Your task to perform on an android device: Empty the shopping cart on target.com. Image 0: 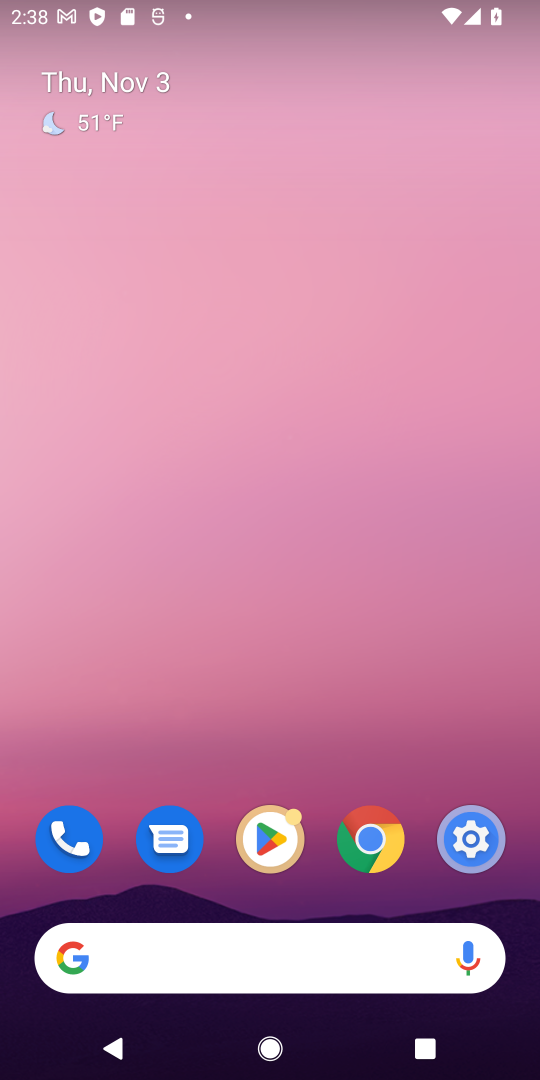
Step 0: click (252, 935)
Your task to perform on an android device: Empty the shopping cart on target.com. Image 1: 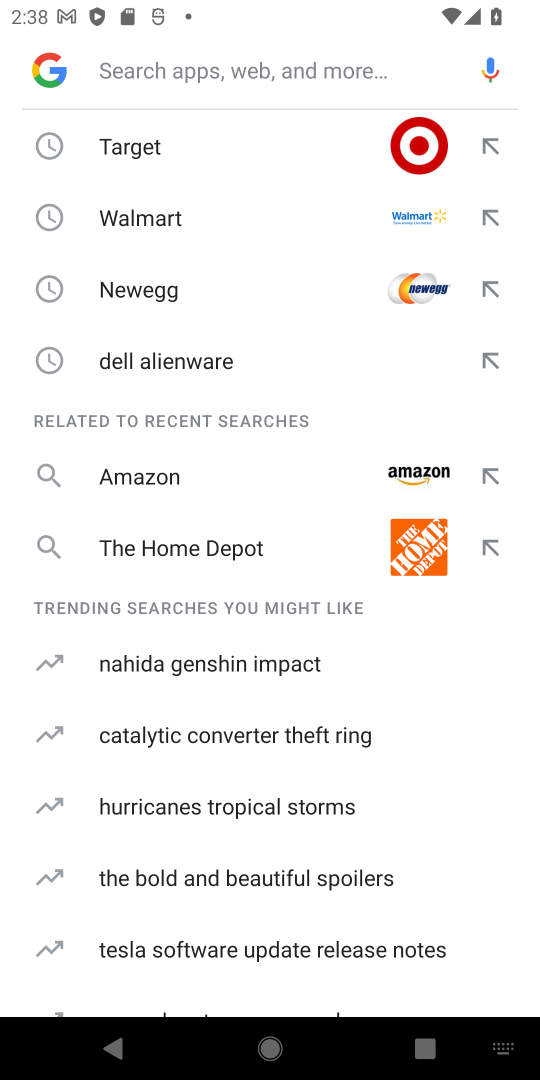
Step 1: click (313, 139)
Your task to perform on an android device: Empty the shopping cart on target.com. Image 2: 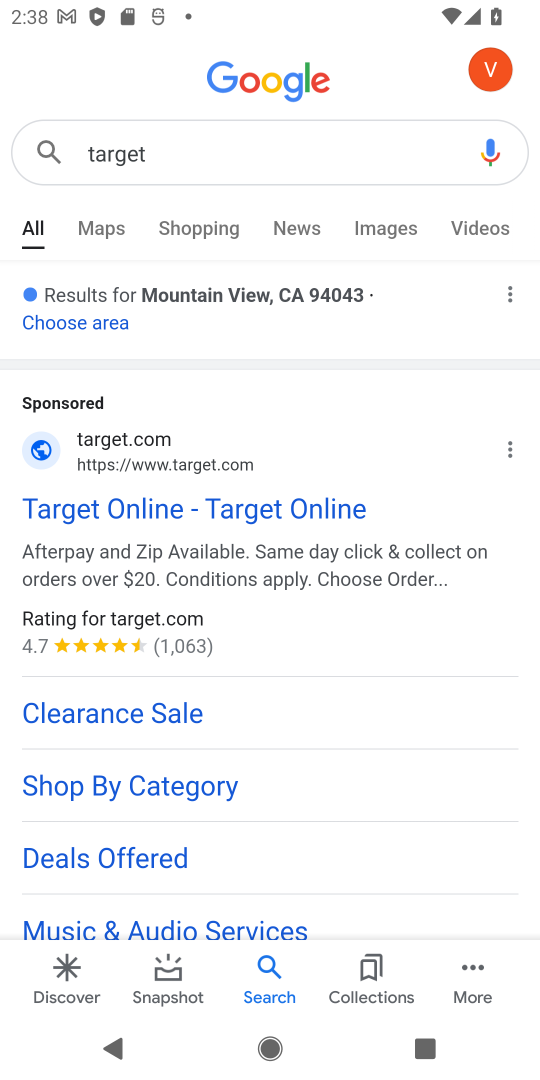
Step 2: click (224, 493)
Your task to perform on an android device: Empty the shopping cart on target.com. Image 3: 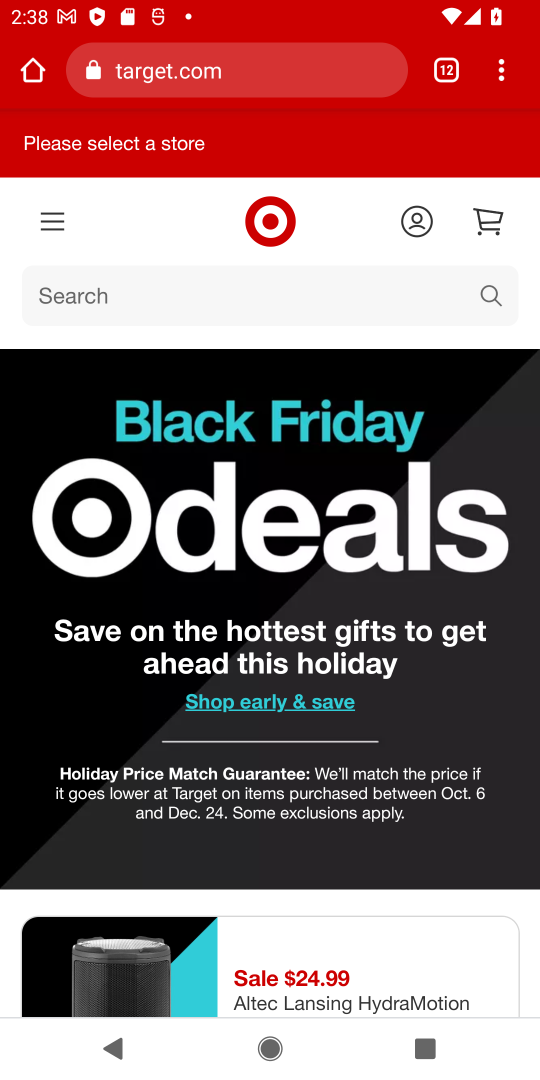
Step 3: click (480, 210)
Your task to perform on an android device: Empty the shopping cart on target.com. Image 4: 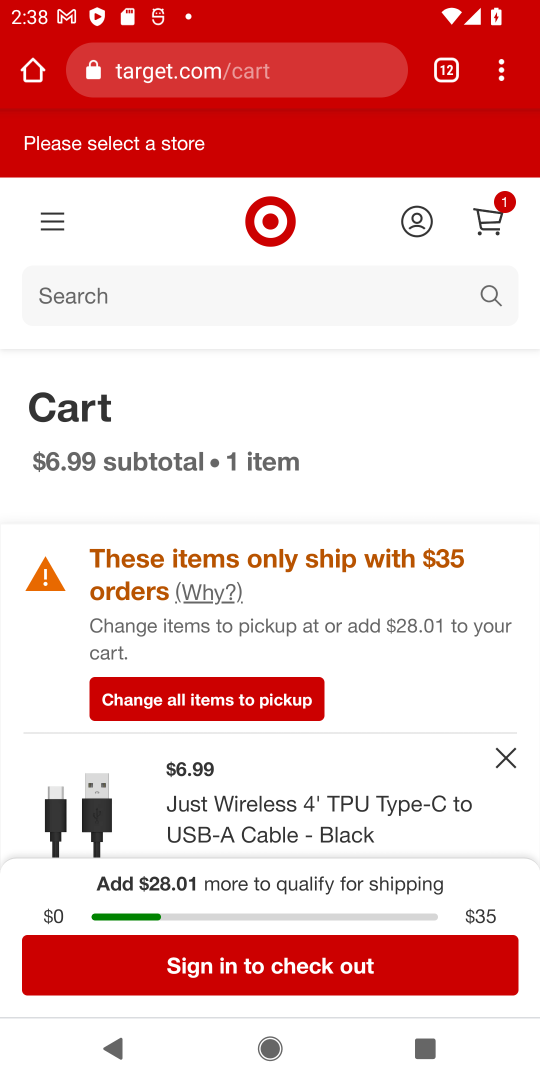
Step 4: click (508, 761)
Your task to perform on an android device: Empty the shopping cart on target.com. Image 5: 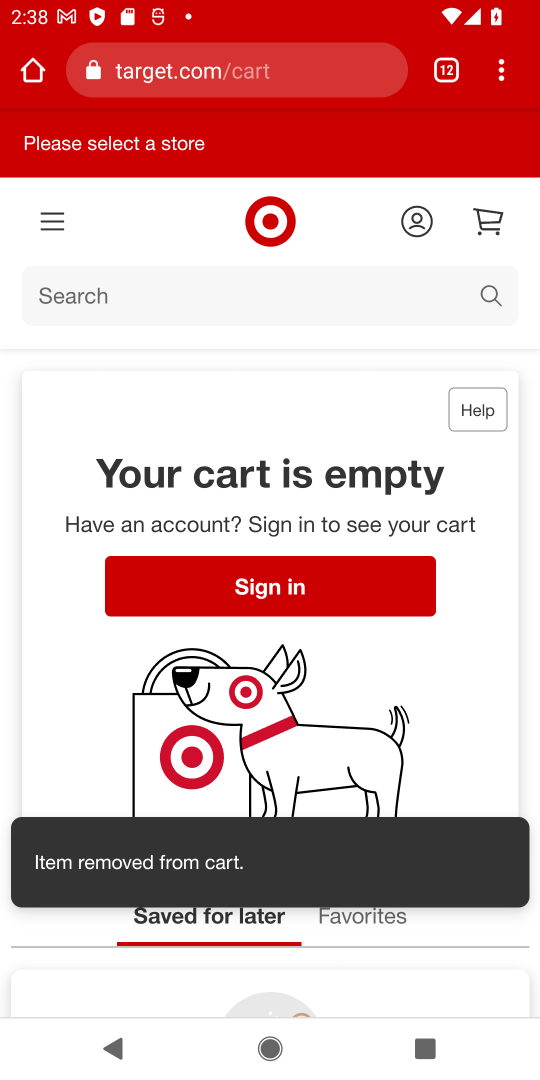
Step 5: task complete